Your task to perform on an android device: Do I have any events tomorrow? Image 0: 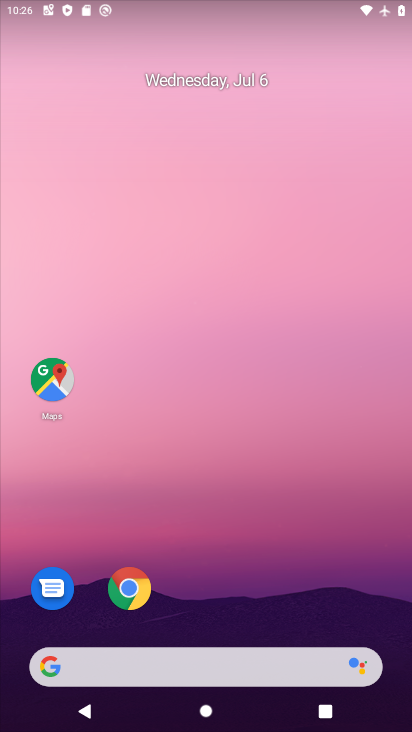
Step 0: drag from (237, 595) to (166, 216)
Your task to perform on an android device: Do I have any events tomorrow? Image 1: 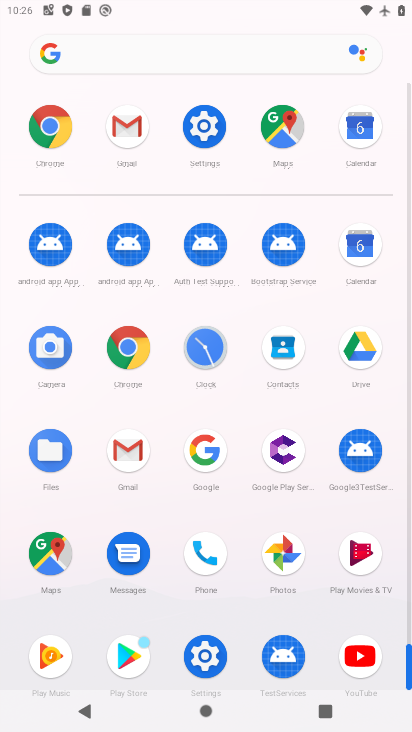
Step 1: click (354, 236)
Your task to perform on an android device: Do I have any events tomorrow? Image 2: 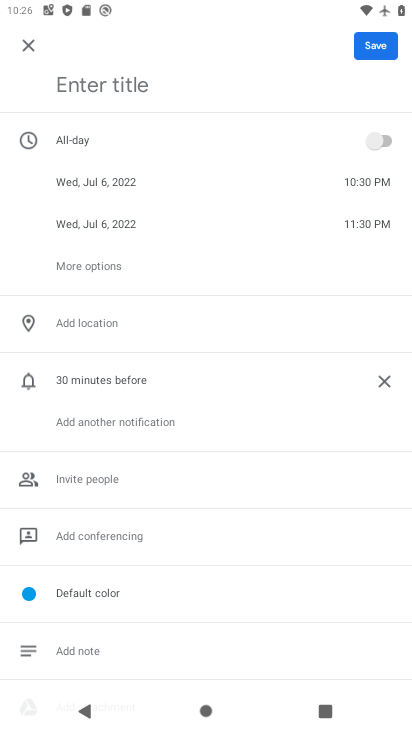
Step 2: click (27, 45)
Your task to perform on an android device: Do I have any events tomorrow? Image 3: 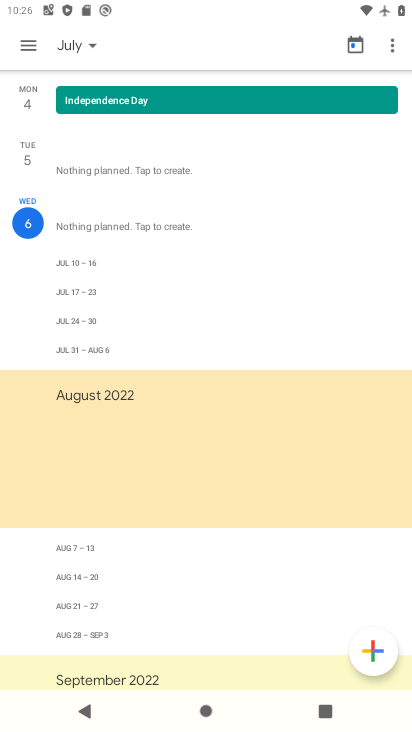
Step 3: click (27, 50)
Your task to perform on an android device: Do I have any events tomorrow? Image 4: 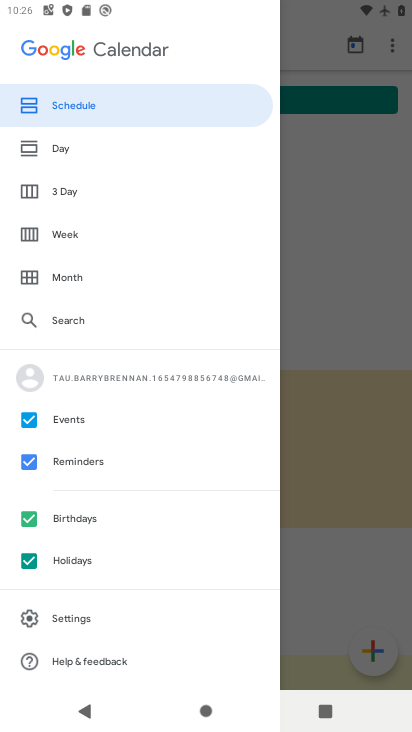
Step 4: click (78, 288)
Your task to perform on an android device: Do I have any events tomorrow? Image 5: 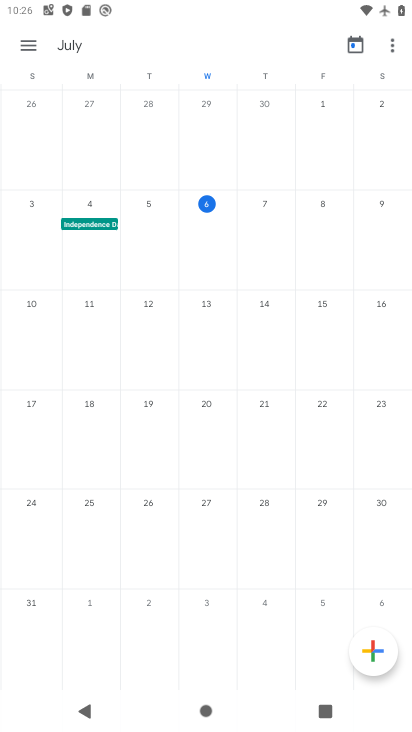
Step 5: click (274, 243)
Your task to perform on an android device: Do I have any events tomorrow? Image 6: 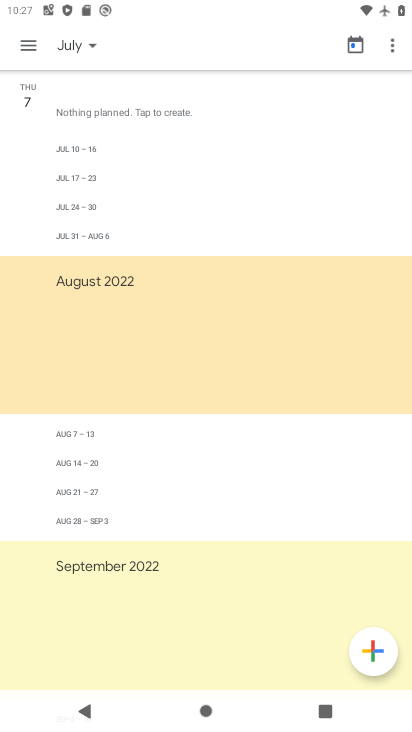
Step 6: task complete